Your task to perform on an android device: Search for corsair k70 on walmart.com, select the first entry, and add it to the cart. Image 0: 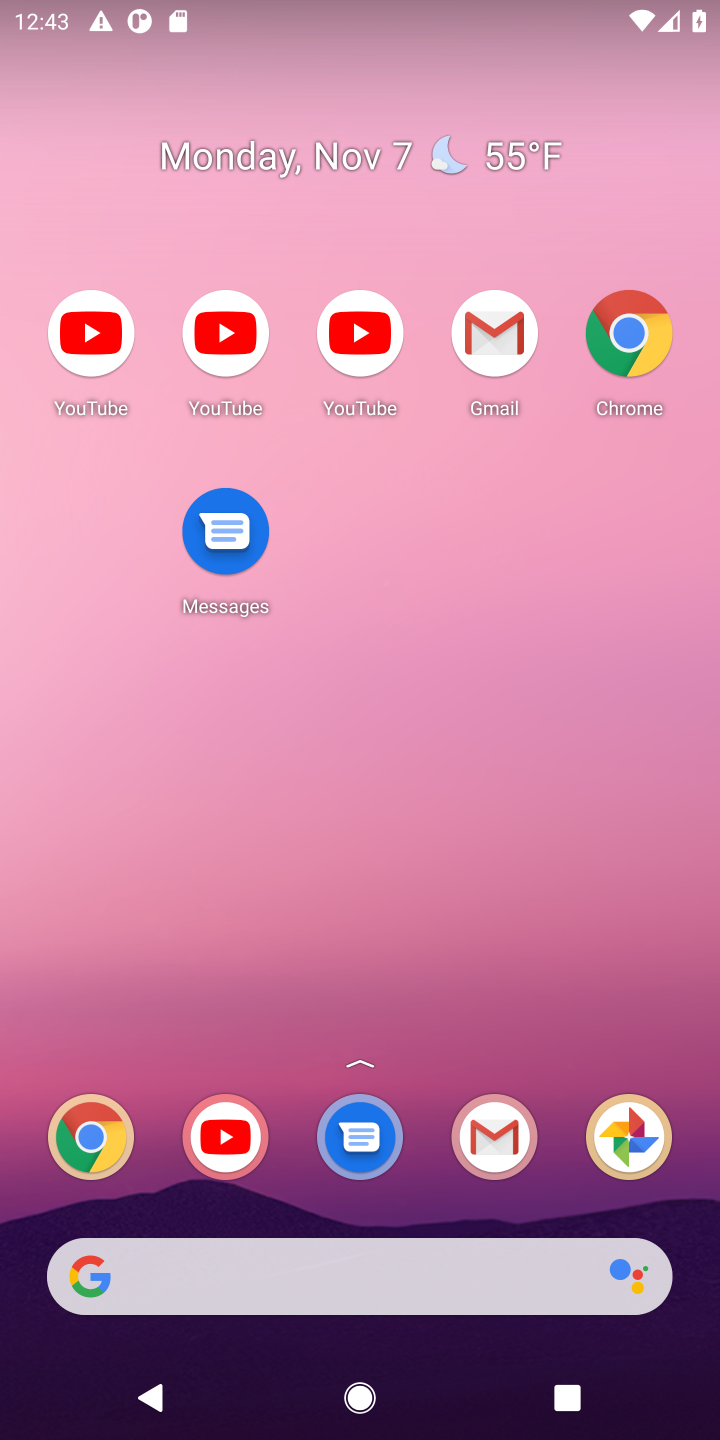
Step 0: drag from (422, 1200) to (275, 214)
Your task to perform on an android device: Search for corsair k70 on walmart.com, select the first entry, and add it to the cart. Image 1: 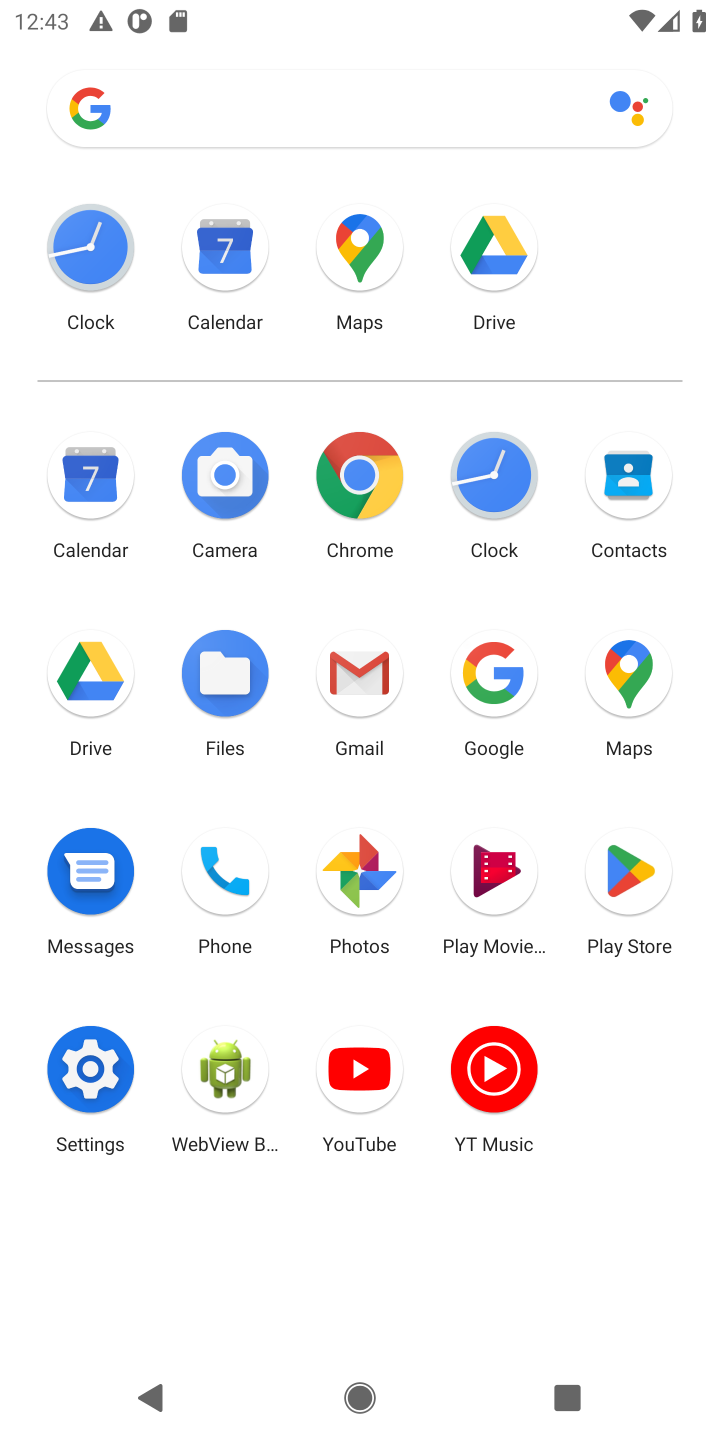
Step 1: click (363, 465)
Your task to perform on an android device: Search for corsair k70 on walmart.com, select the first entry, and add it to the cart. Image 2: 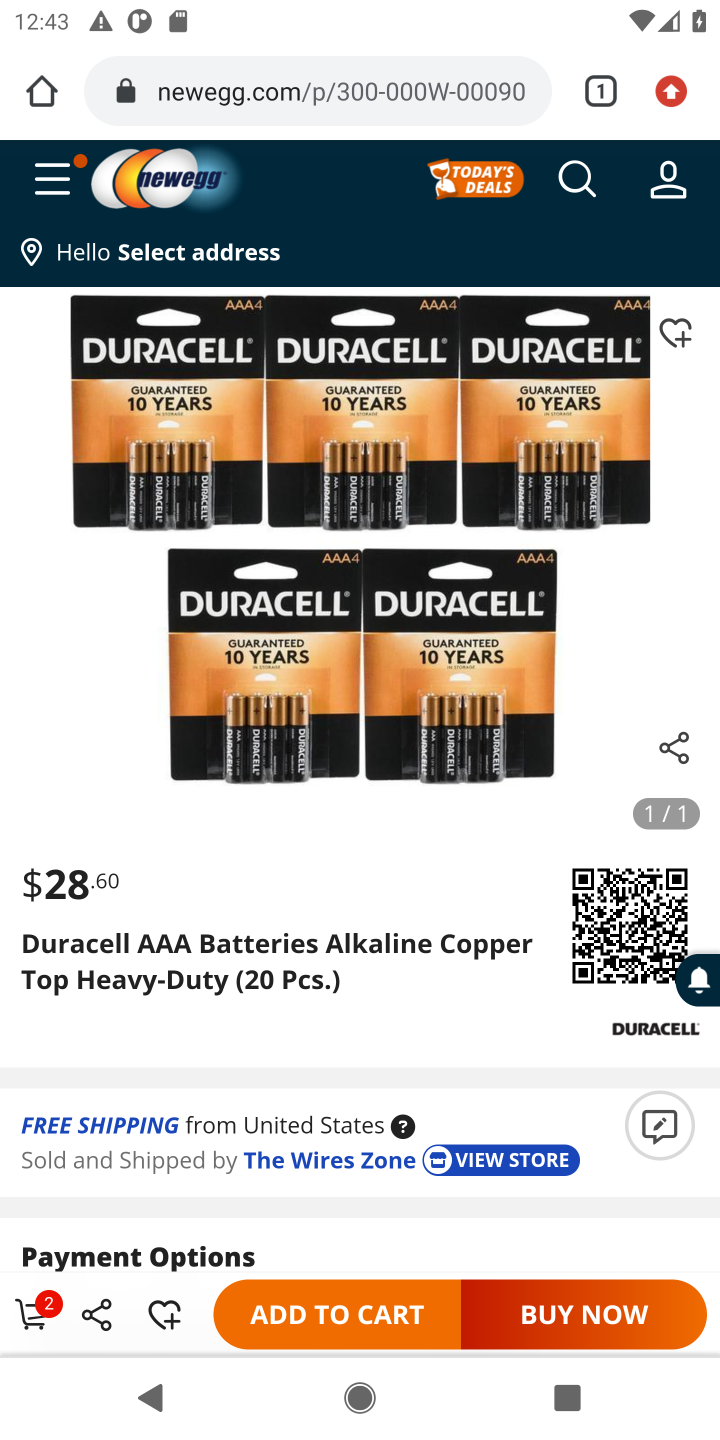
Step 2: click (464, 86)
Your task to perform on an android device: Search for corsair k70 on walmart.com, select the first entry, and add it to the cart. Image 3: 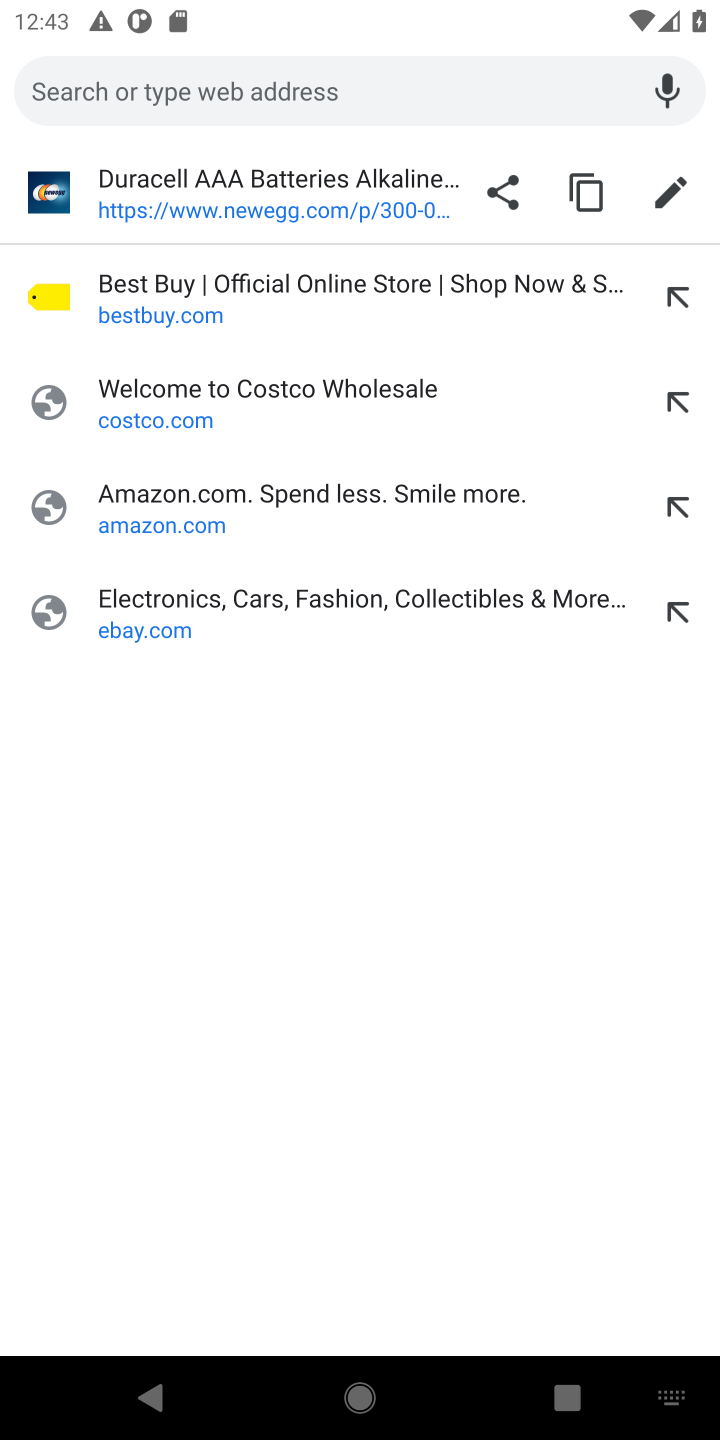
Step 3: type ""
Your task to perform on an android device: Search for corsair k70 on walmart.com, select the first entry, and add it to the cart. Image 4: 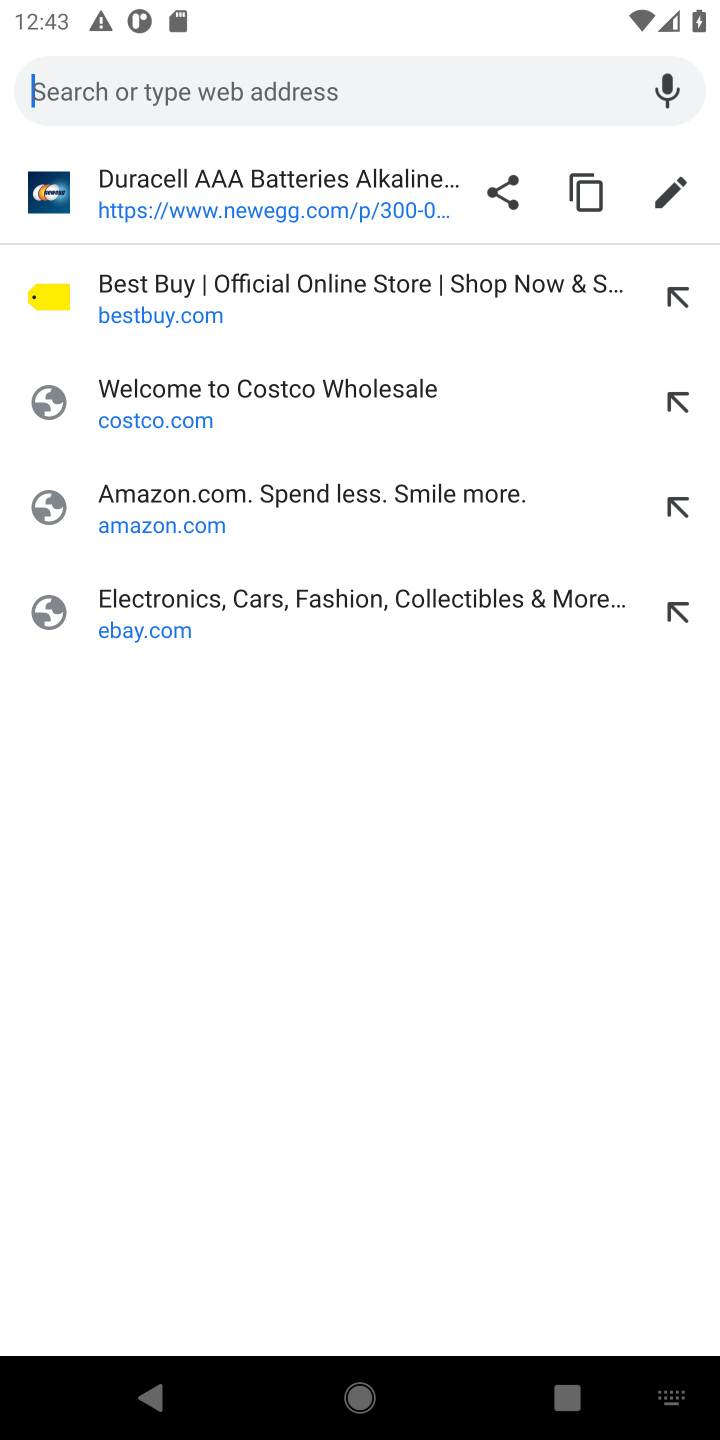
Step 4: type "walmart.com"
Your task to perform on an android device: Search for corsair k70 on walmart.com, select the first entry, and add it to the cart. Image 5: 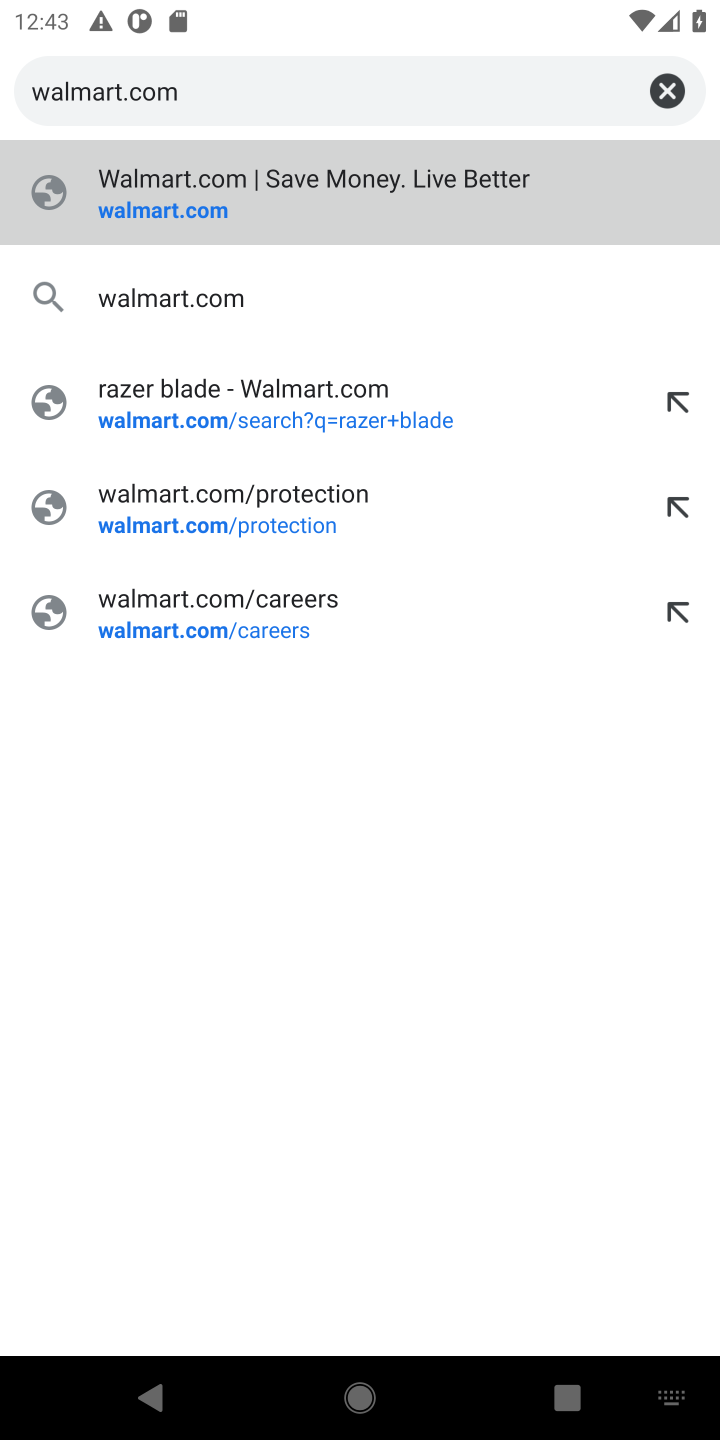
Step 5: press enter
Your task to perform on an android device: Search for corsair k70 on walmart.com, select the first entry, and add it to the cart. Image 6: 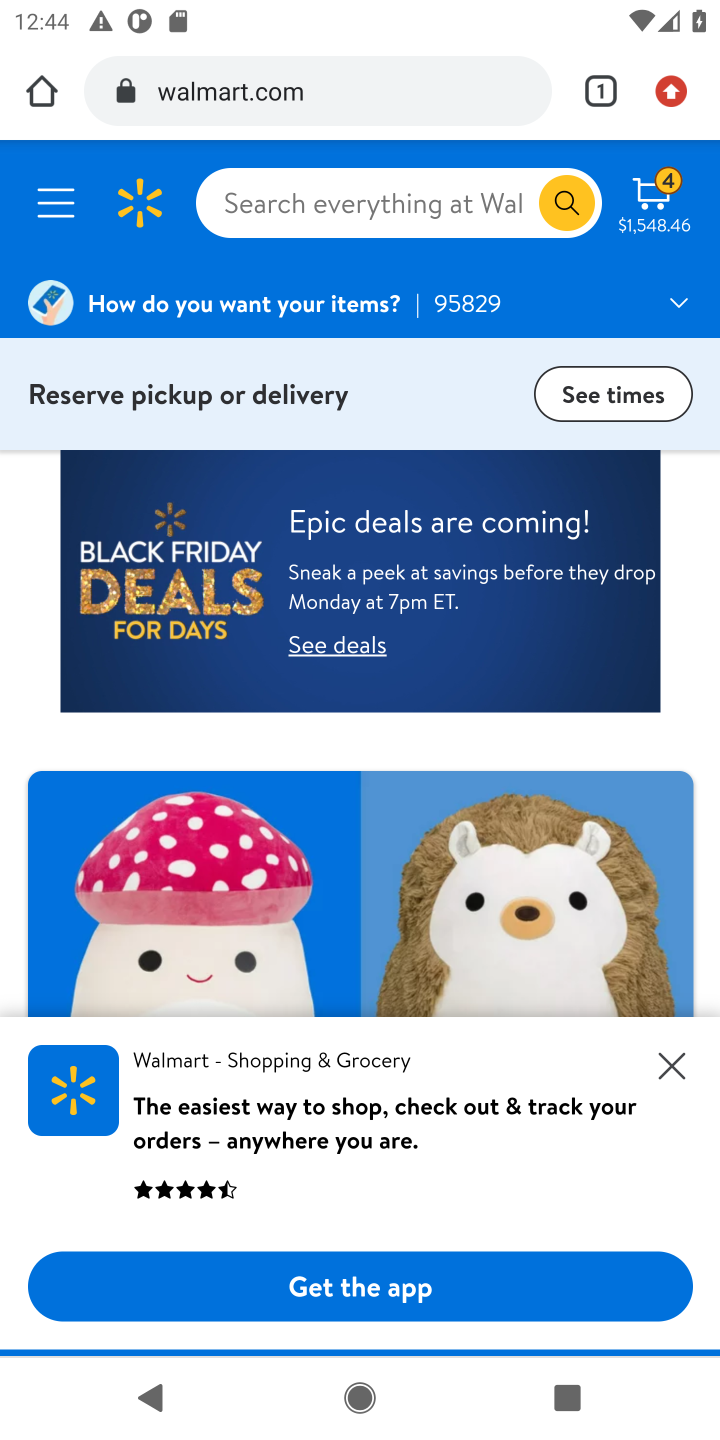
Step 6: click (303, 215)
Your task to perform on an android device: Search for corsair k70 on walmart.com, select the first entry, and add it to the cart. Image 7: 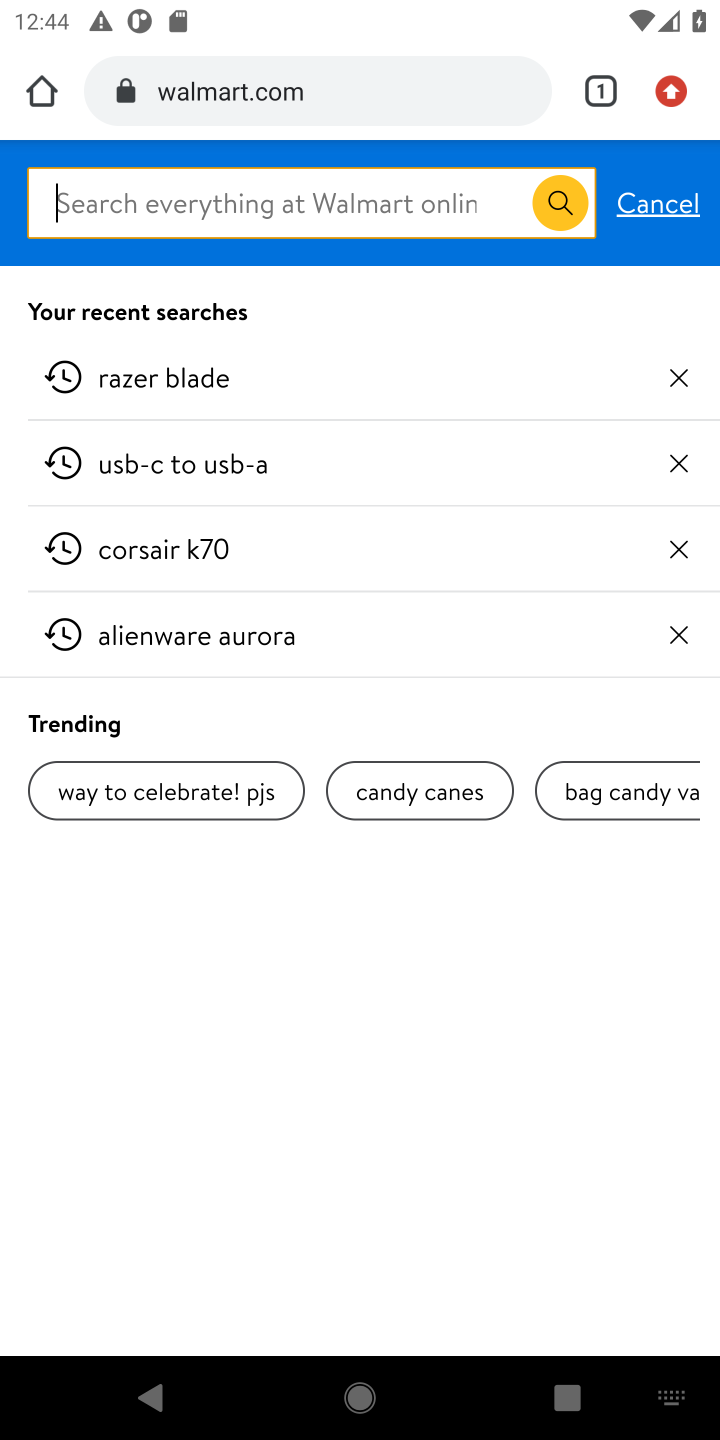
Step 7: type "corsair k70"
Your task to perform on an android device: Search for corsair k70 on walmart.com, select the first entry, and add it to the cart. Image 8: 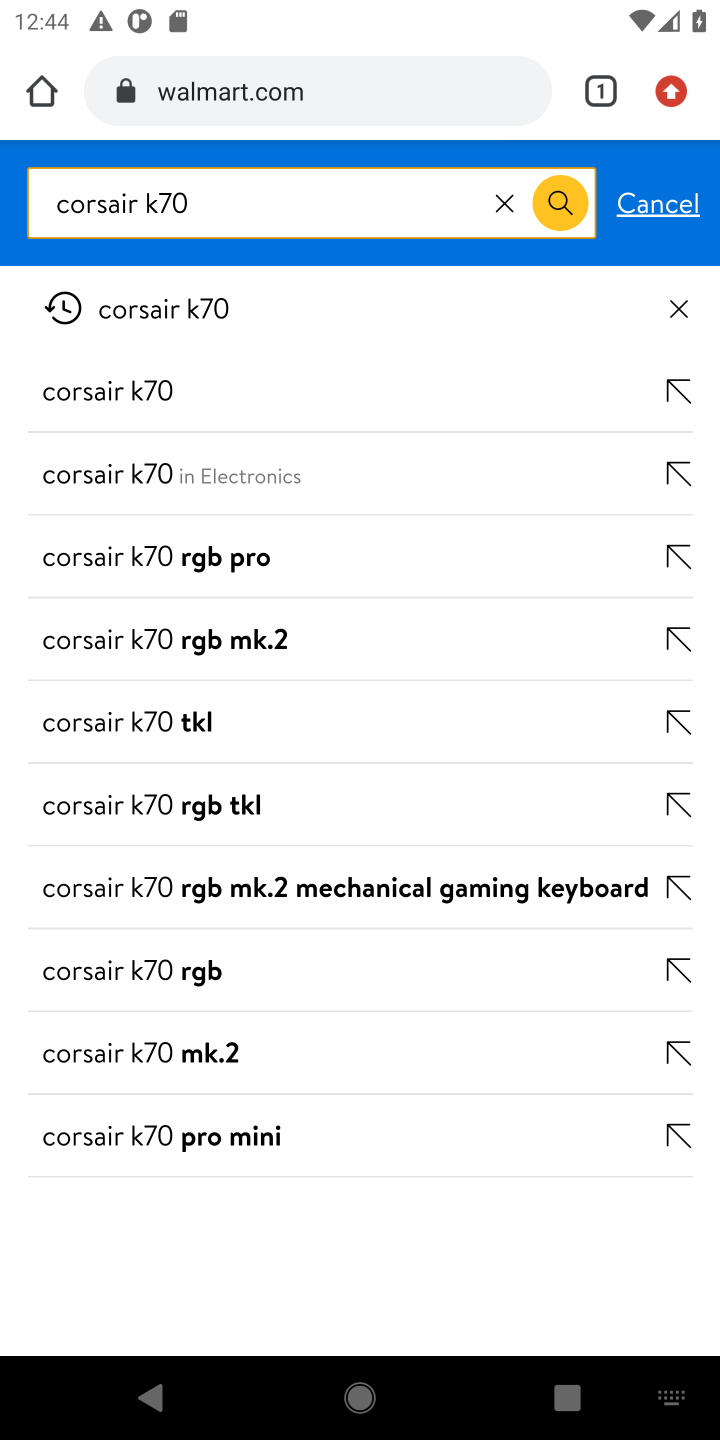
Step 8: press enter
Your task to perform on an android device: Search for corsair k70 on walmart.com, select the first entry, and add it to the cart. Image 9: 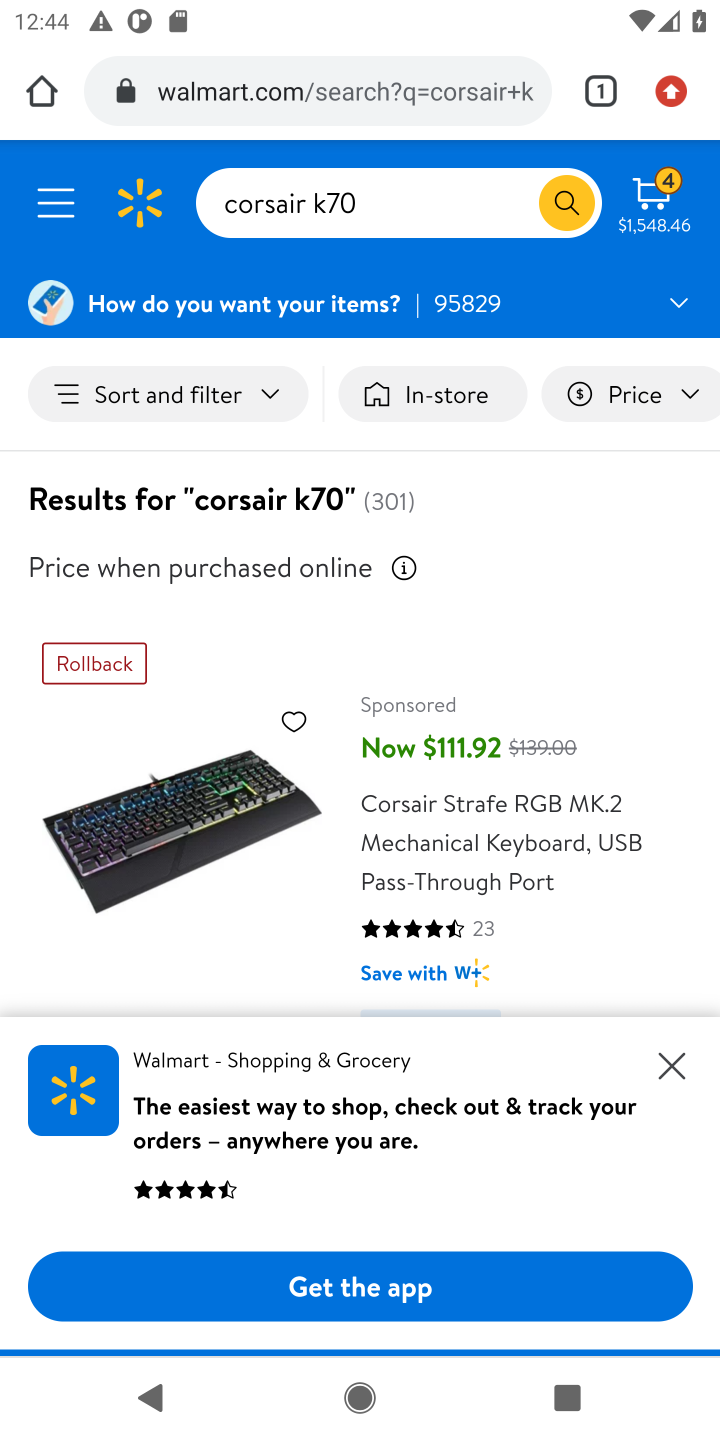
Step 9: drag from (145, 876) to (262, 37)
Your task to perform on an android device: Search for corsair k70 on walmart.com, select the first entry, and add it to the cart. Image 10: 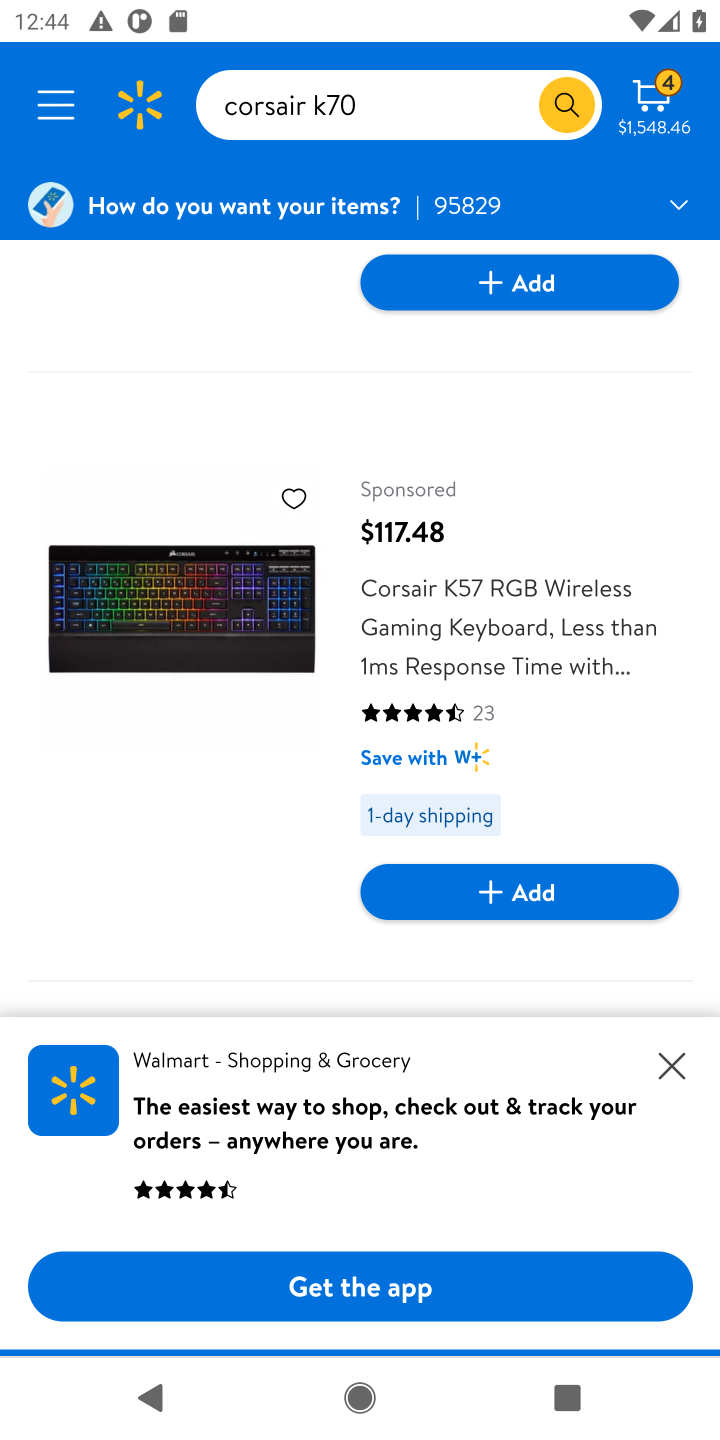
Step 10: drag from (291, 825) to (510, 24)
Your task to perform on an android device: Search for corsair k70 on walmart.com, select the first entry, and add it to the cart. Image 11: 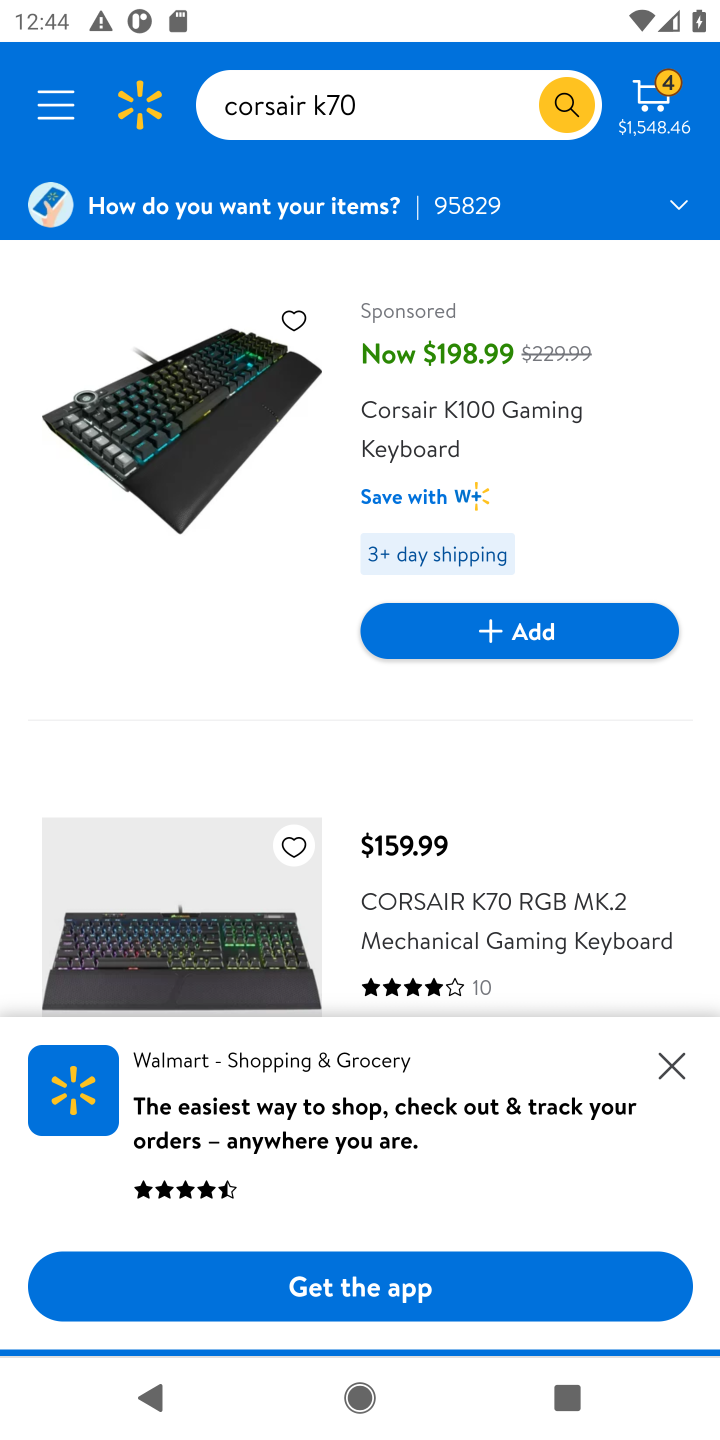
Step 11: drag from (344, 718) to (403, 353)
Your task to perform on an android device: Search for corsair k70 on walmart.com, select the first entry, and add it to the cart. Image 12: 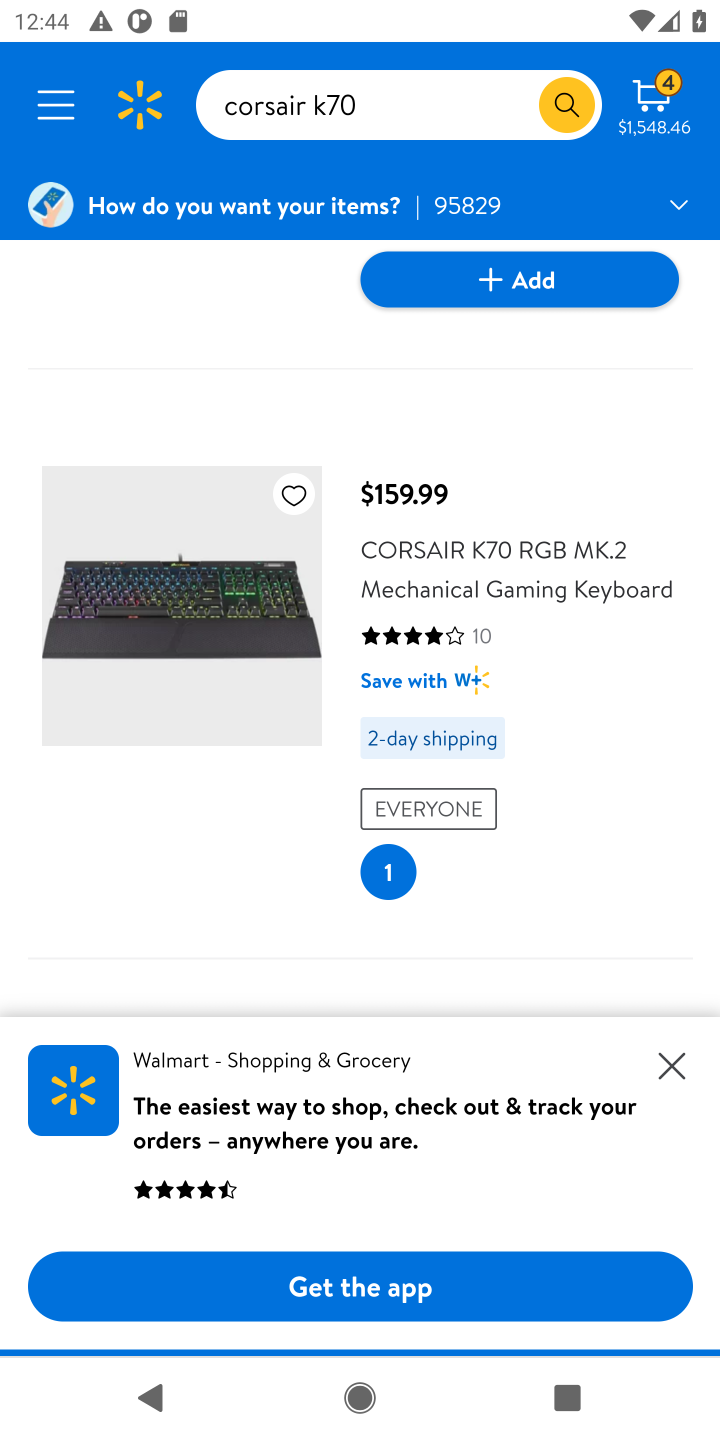
Step 12: click (426, 581)
Your task to perform on an android device: Search for corsair k70 on walmart.com, select the first entry, and add it to the cart. Image 13: 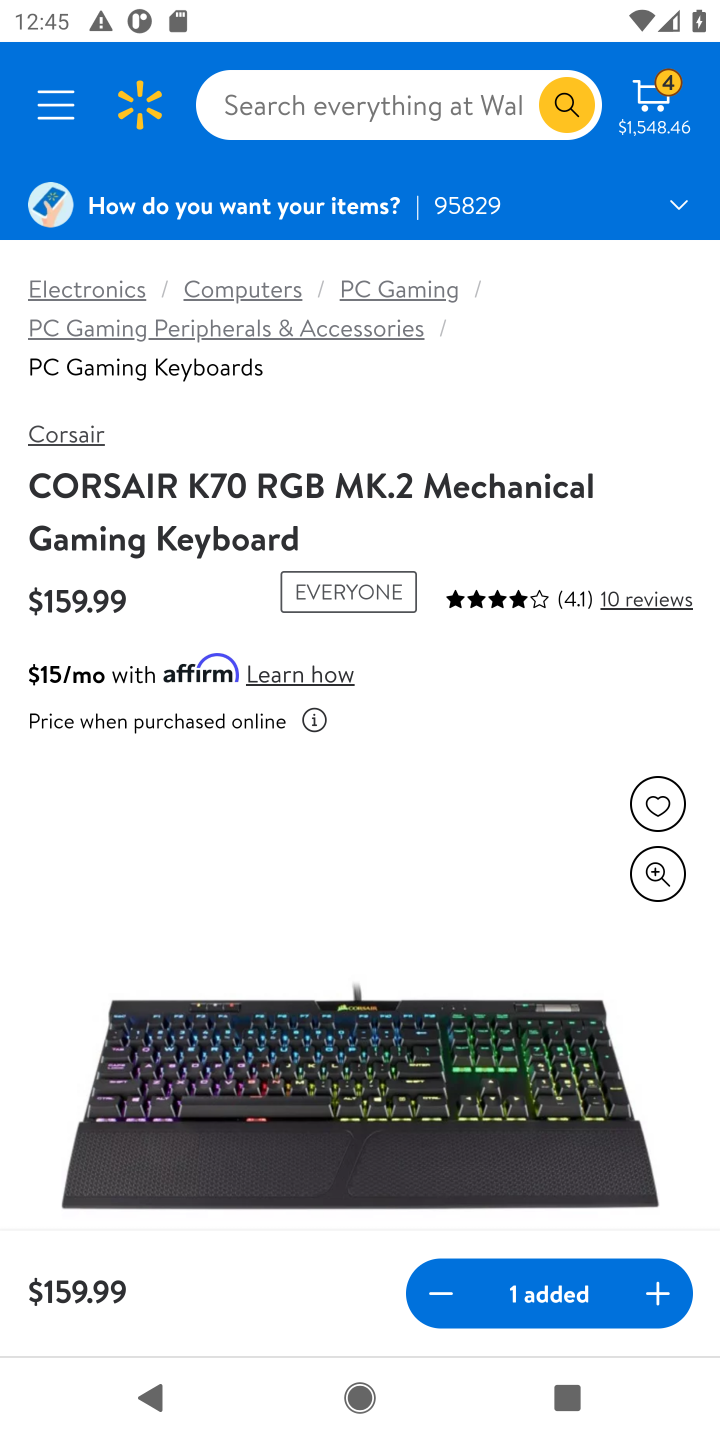
Step 13: drag from (430, 927) to (415, 384)
Your task to perform on an android device: Search for corsair k70 on walmart.com, select the first entry, and add it to the cart. Image 14: 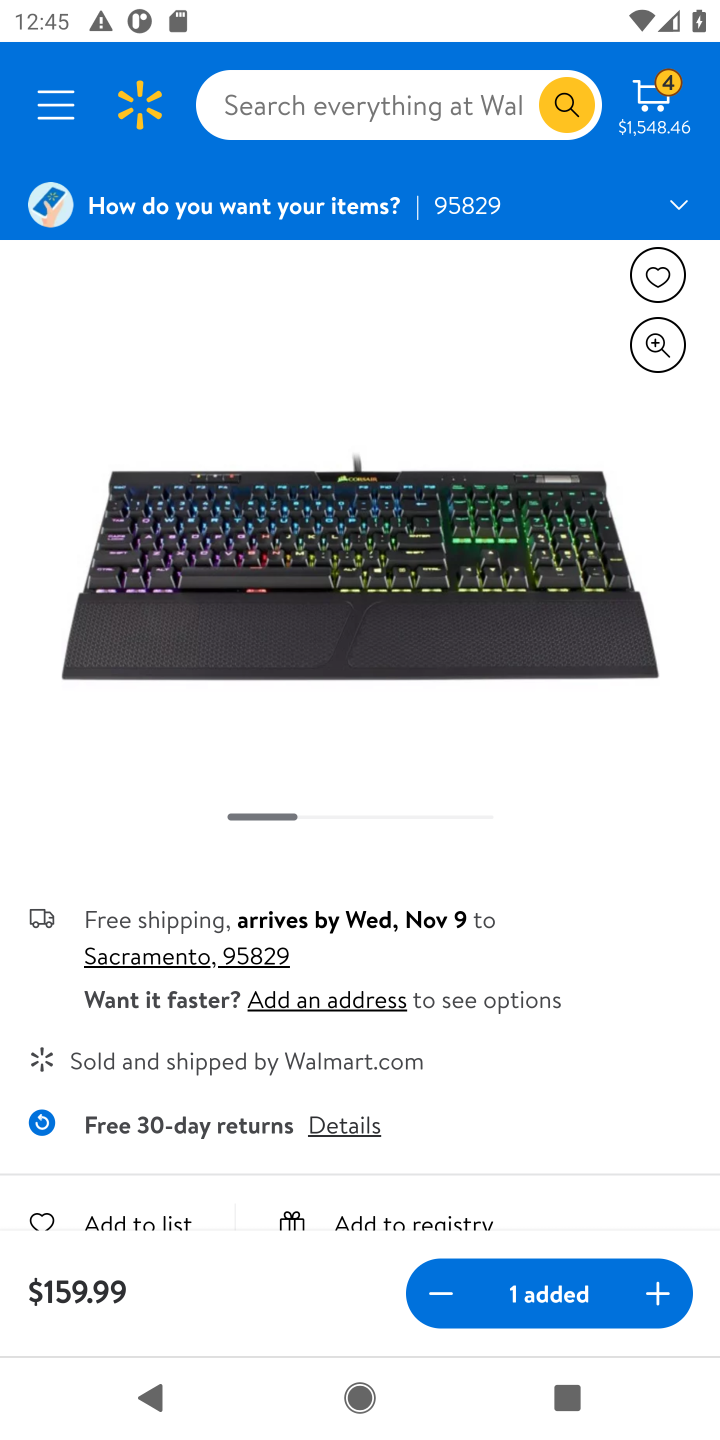
Step 14: click (666, 1293)
Your task to perform on an android device: Search for corsair k70 on walmart.com, select the first entry, and add it to the cart. Image 15: 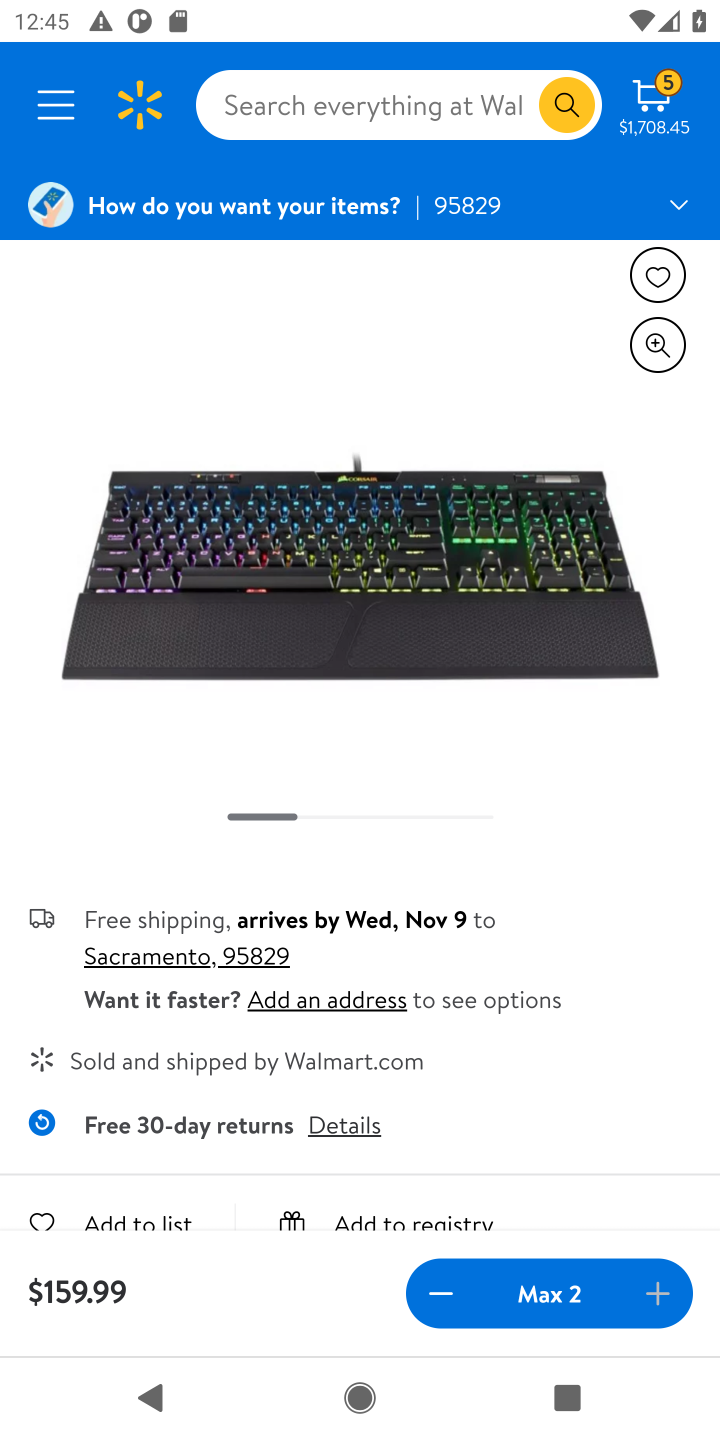
Step 15: task complete